Your task to perform on an android device: Show me recent news Image 0: 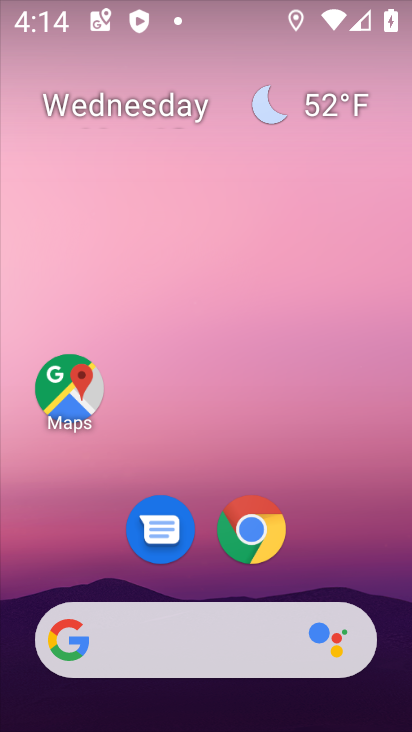
Step 0: drag from (328, 573) to (221, 38)
Your task to perform on an android device: Show me recent news Image 1: 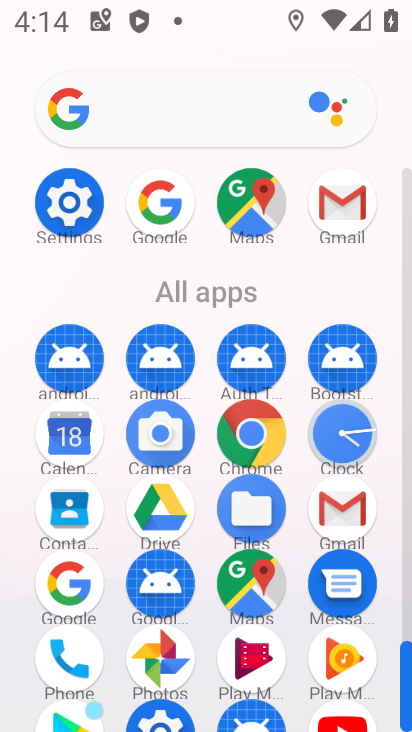
Step 1: click (154, 201)
Your task to perform on an android device: Show me recent news Image 2: 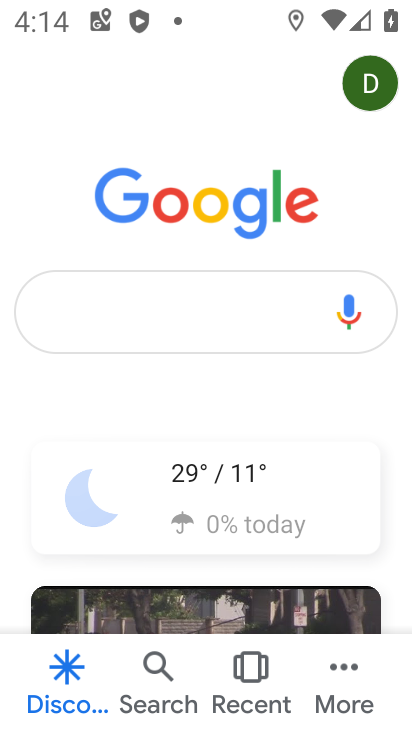
Step 2: click (198, 315)
Your task to perform on an android device: Show me recent news Image 3: 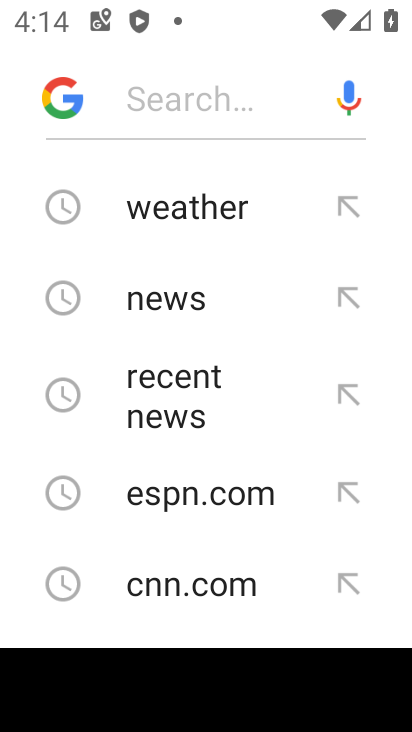
Step 3: type "recent news"
Your task to perform on an android device: Show me recent news Image 4: 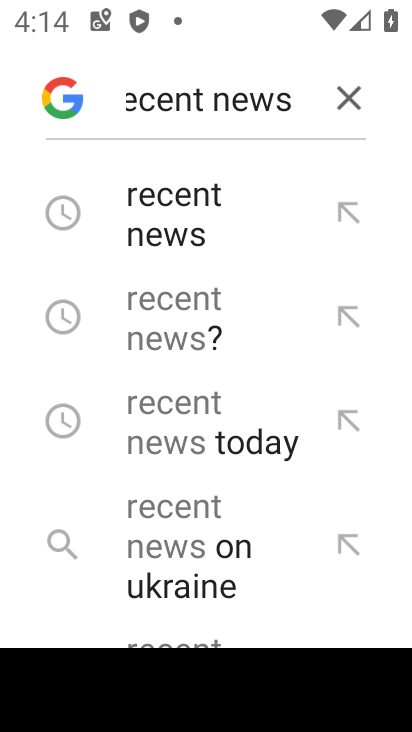
Step 4: click (172, 225)
Your task to perform on an android device: Show me recent news Image 5: 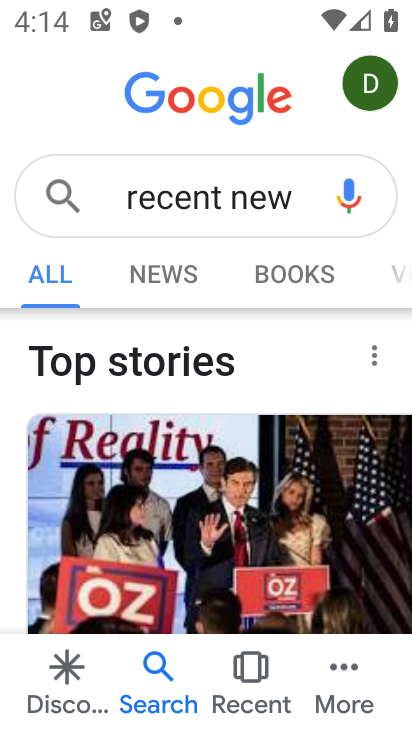
Step 5: drag from (177, 503) to (212, 181)
Your task to perform on an android device: Show me recent news Image 6: 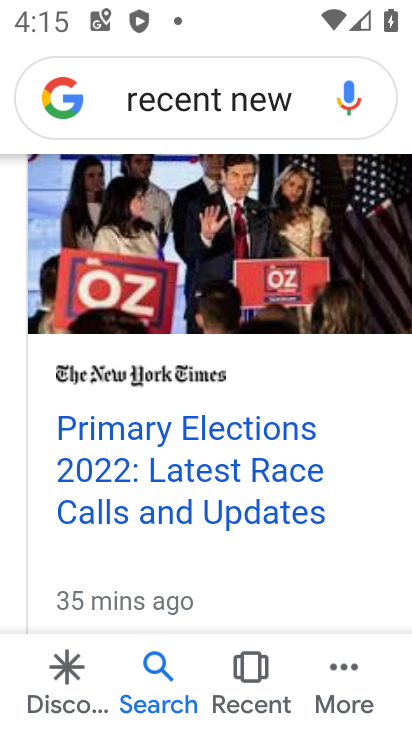
Step 6: click (232, 461)
Your task to perform on an android device: Show me recent news Image 7: 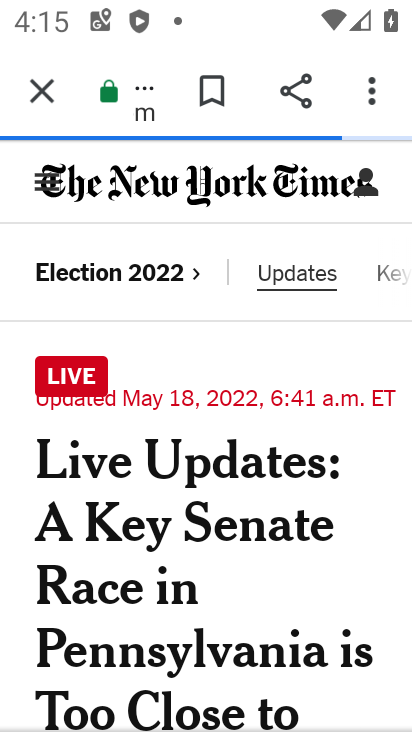
Step 7: task complete